Your task to perform on an android device: Open maps Image 0: 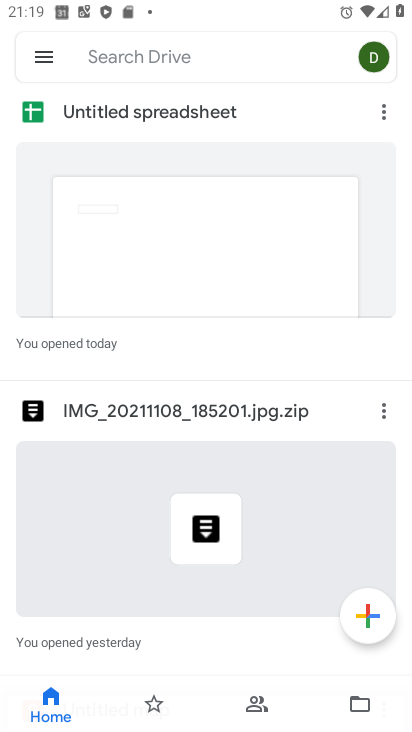
Step 0: press home button
Your task to perform on an android device: Open maps Image 1: 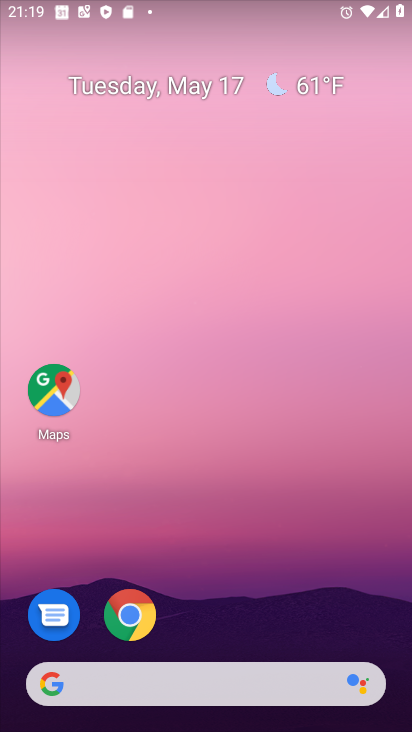
Step 1: click (56, 388)
Your task to perform on an android device: Open maps Image 2: 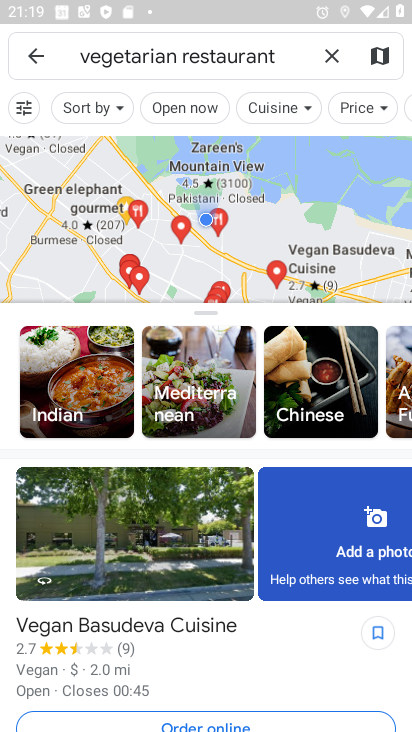
Step 2: task complete